Your task to perform on an android device: check battery use Image 0: 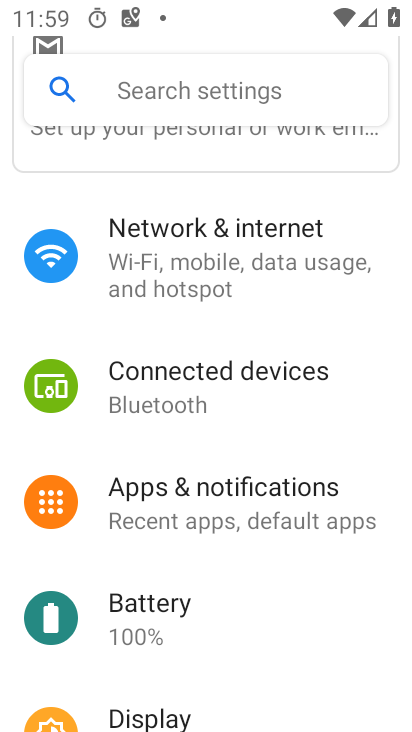
Step 0: press home button
Your task to perform on an android device: check battery use Image 1: 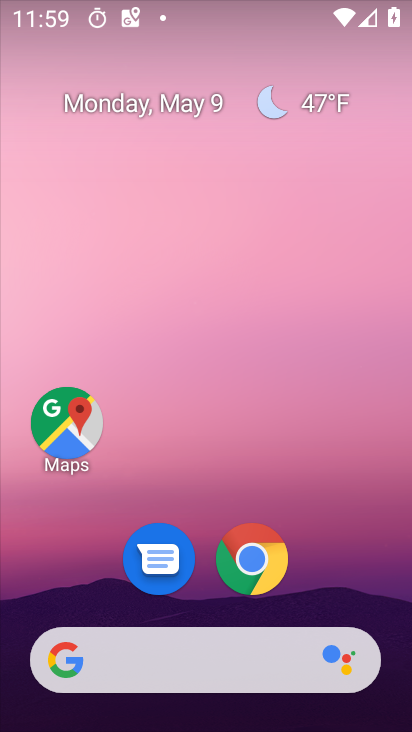
Step 1: drag from (333, 600) to (313, 386)
Your task to perform on an android device: check battery use Image 2: 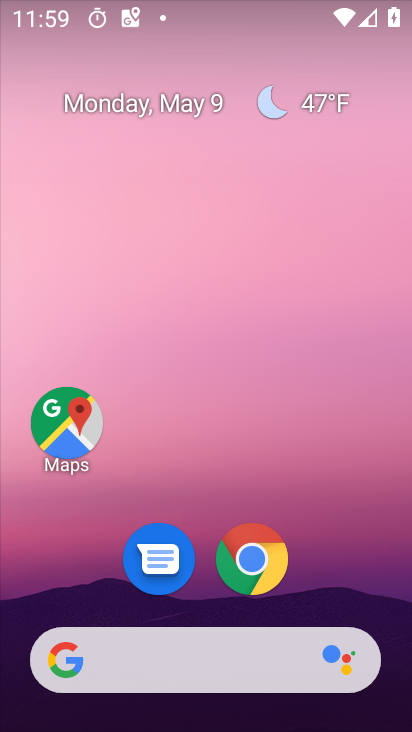
Step 2: drag from (379, 562) to (375, 132)
Your task to perform on an android device: check battery use Image 3: 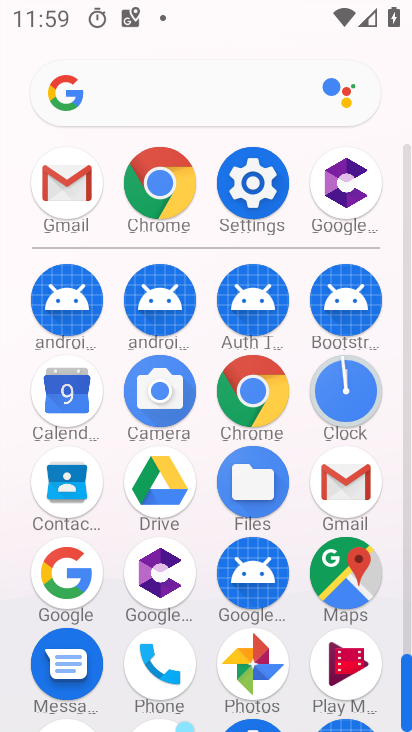
Step 3: click (236, 185)
Your task to perform on an android device: check battery use Image 4: 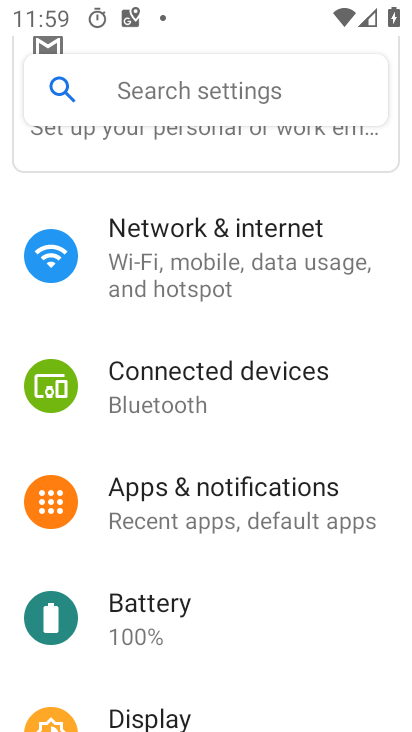
Step 4: click (223, 596)
Your task to perform on an android device: check battery use Image 5: 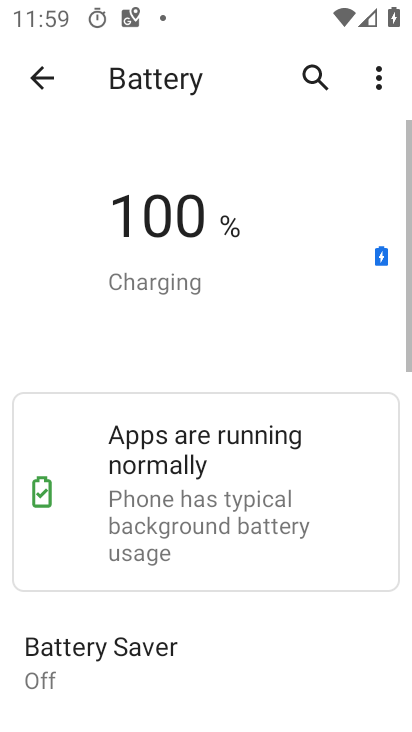
Step 5: task complete